Your task to perform on an android device: turn pop-ups off in chrome Image 0: 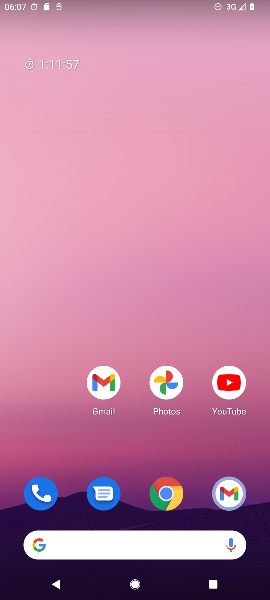
Step 0: drag from (66, 447) to (101, 68)
Your task to perform on an android device: turn pop-ups off in chrome Image 1: 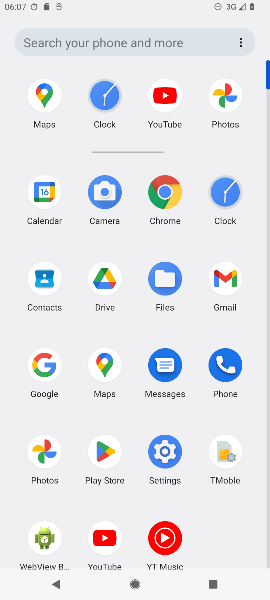
Step 1: click (169, 194)
Your task to perform on an android device: turn pop-ups off in chrome Image 2: 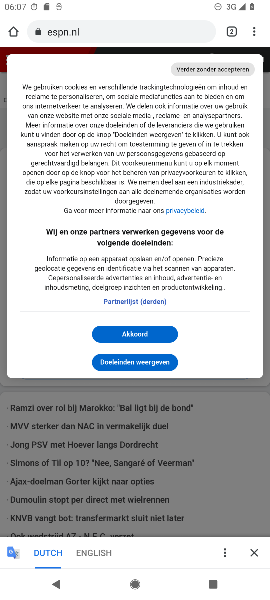
Step 2: click (254, 34)
Your task to perform on an android device: turn pop-ups off in chrome Image 3: 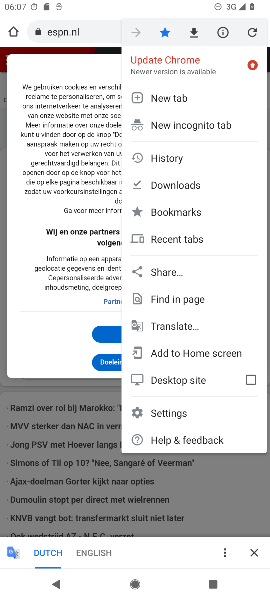
Step 3: click (202, 408)
Your task to perform on an android device: turn pop-ups off in chrome Image 4: 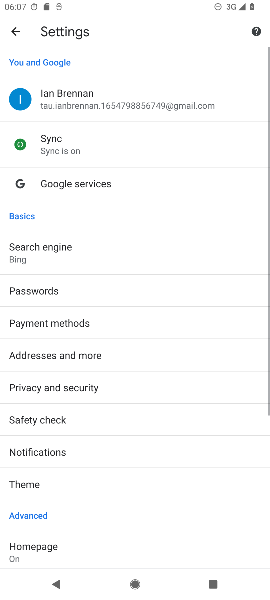
Step 4: drag from (200, 428) to (200, 303)
Your task to perform on an android device: turn pop-ups off in chrome Image 5: 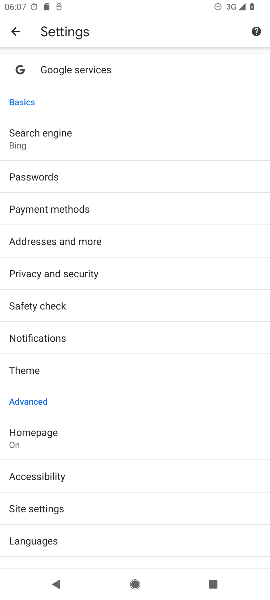
Step 5: drag from (201, 461) to (209, 331)
Your task to perform on an android device: turn pop-ups off in chrome Image 6: 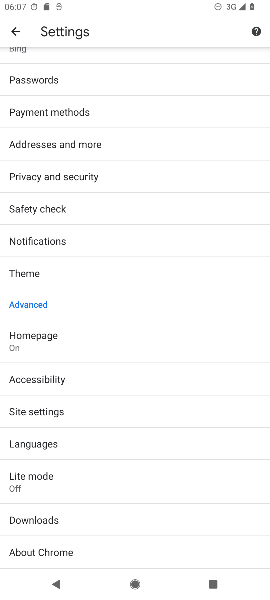
Step 6: drag from (205, 434) to (211, 332)
Your task to perform on an android device: turn pop-ups off in chrome Image 7: 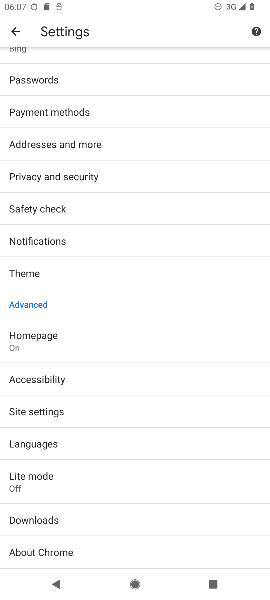
Step 7: click (176, 405)
Your task to perform on an android device: turn pop-ups off in chrome Image 8: 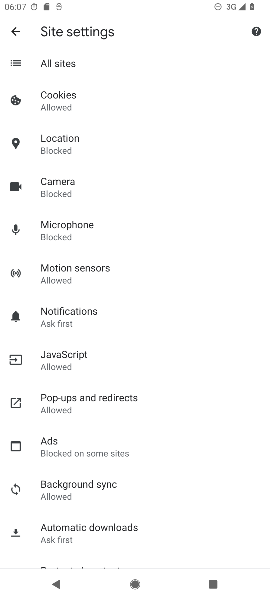
Step 8: drag from (226, 184) to (225, 300)
Your task to perform on an android device: turn pop-ups off in chrome Image 9: 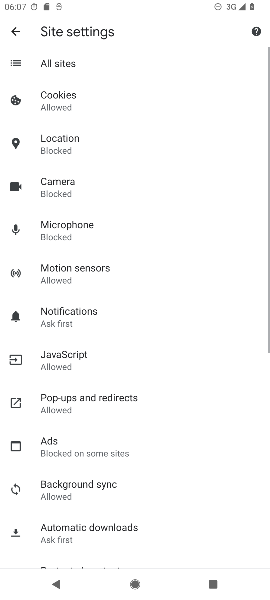
Step 9: drag from (221, 389) to (225, 298)
Your task to perform on an android device: turn pop-ups off in chrome Image 10: 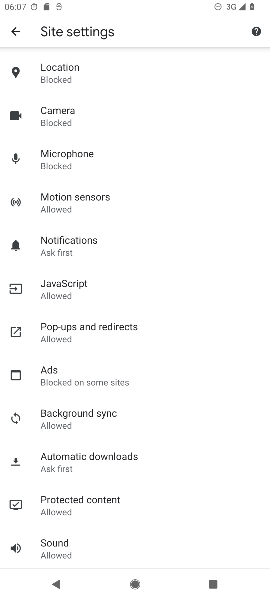
Step 10: click (151, 332)
Your task to perform on an android device: turn pop-ups off in chrome Image 11: 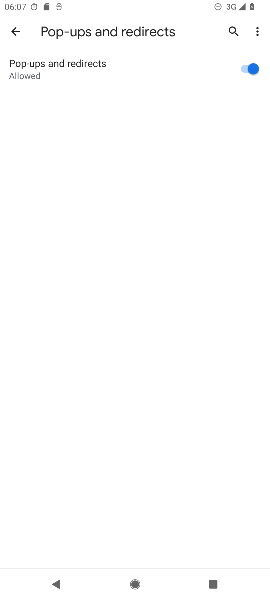
Step 11: click (253, 69)
Your task to perform on an android device: turn pop-ups off in chrome Image 12: 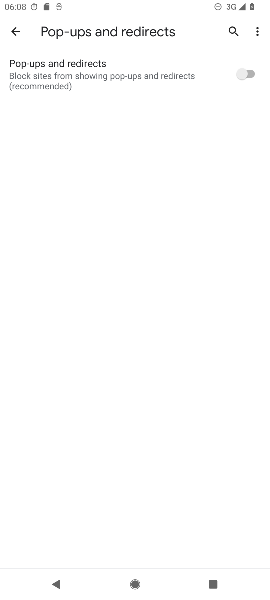
Step 12: task complete